Your task to perform on an android device: Go to Yahoo.com Image 0: 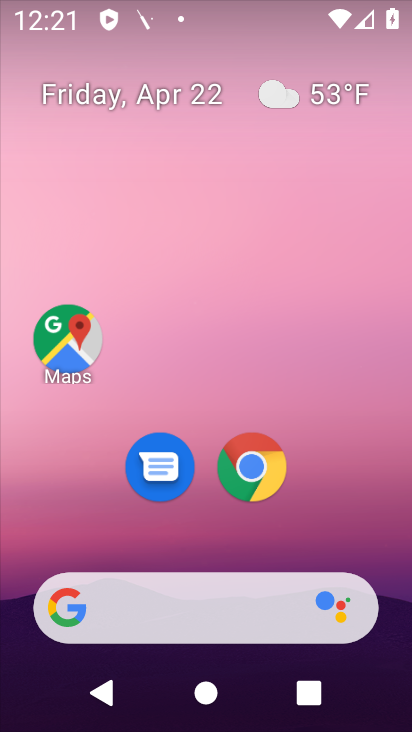
Step 0: click (255, 465)
Your task to perform on an android device: Go to Yahoo.com Image 1: 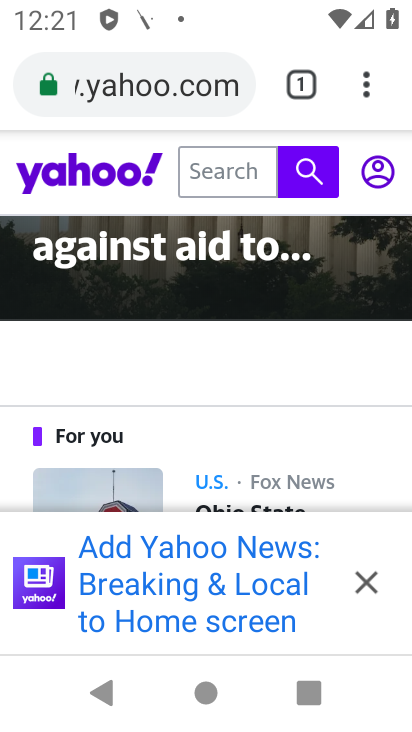
Step 1: task complete